Your task to perform on an android device: open app "Facebook" (install if not already installed) Image 0: 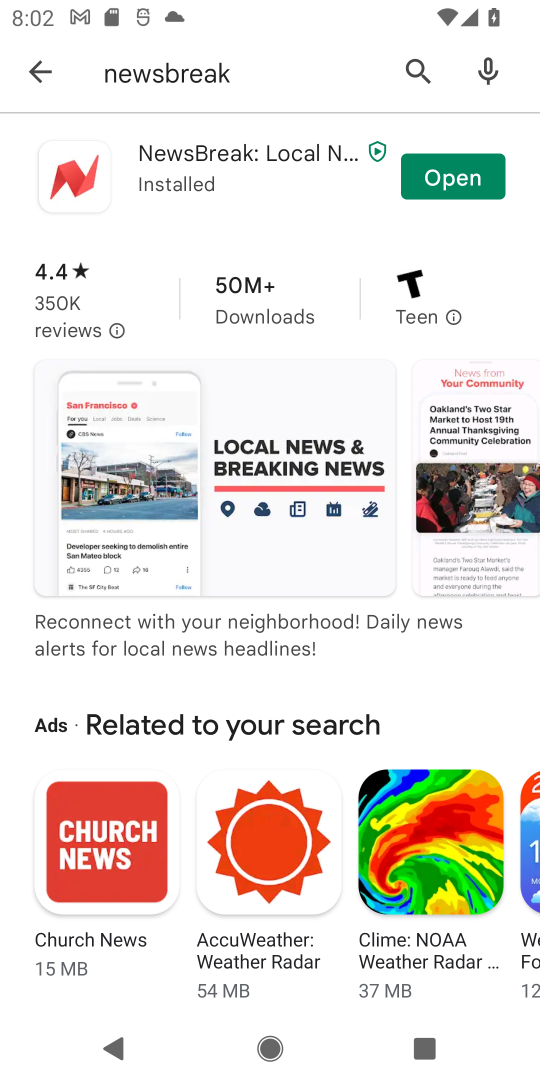
Step 0: press home button
Your task to perform on an android device: open app "Facebook" (install if not already installed) Image 1: 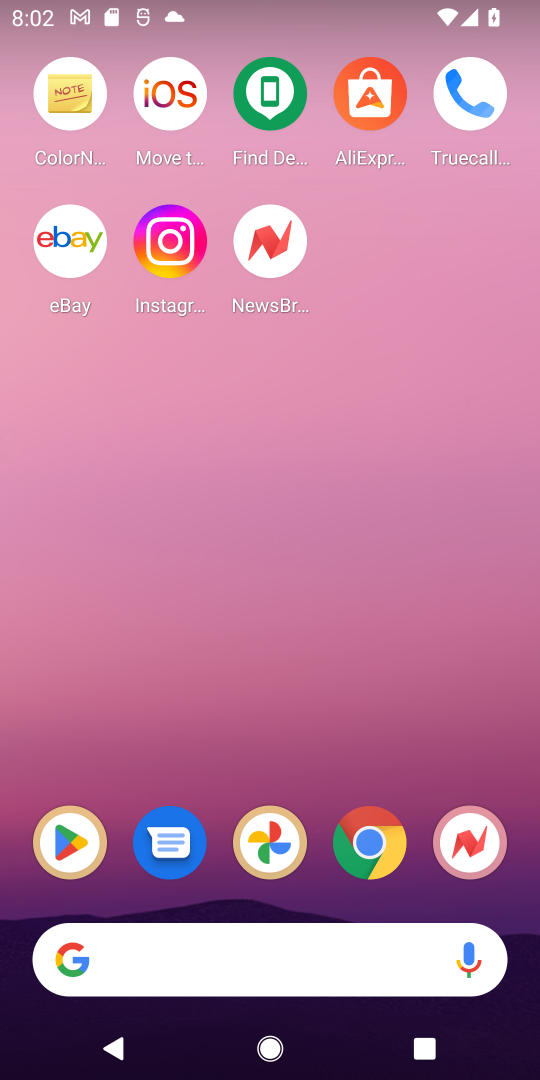
Step 1: click (79, 842)
Your task to perform on an android device: open app "Facebook" (install if not already installed) Image 2: 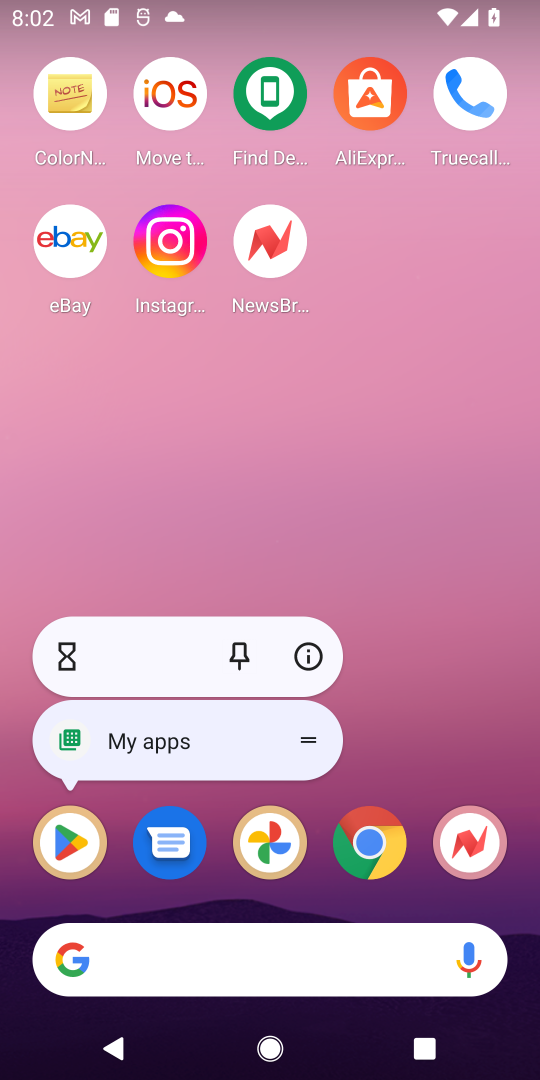
Step 2: click (75, 839)
Your task to perform on an android device: open app "Facebook" (install if not already installed) Image 3: 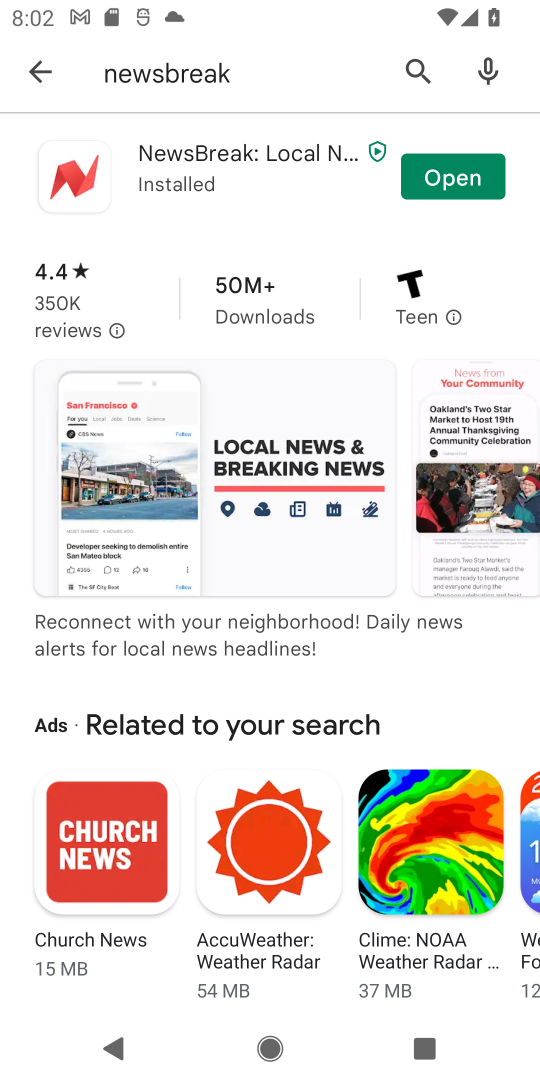
Step 3: click (240, 77)
Your task to perform on an android device: open app "Facebook" (install if not already installed) Image 4: 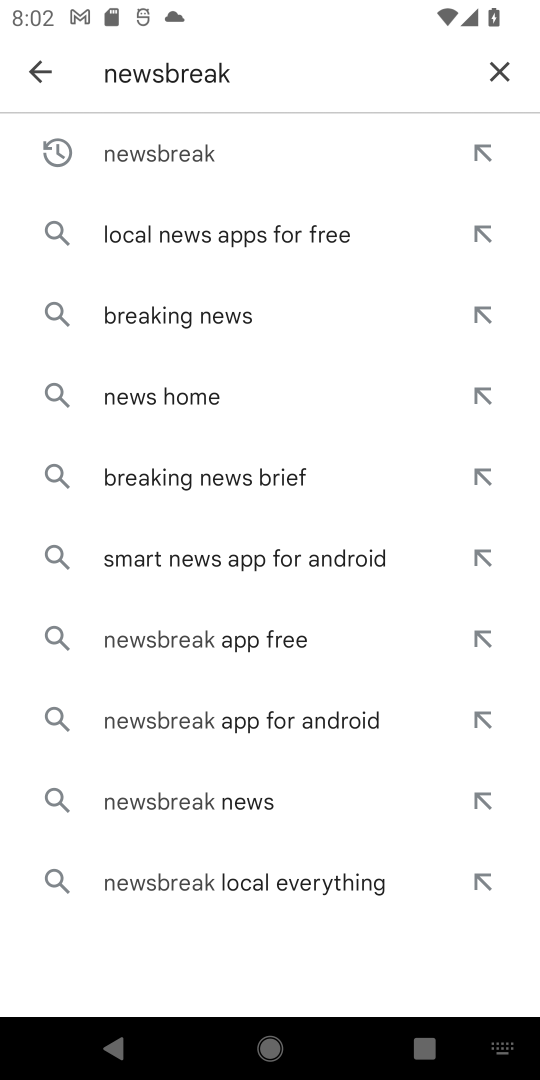
Step 4: click (506, 65)
Your task to perform on an android device: open app "Facebook" (install if not already installed) Image 5: 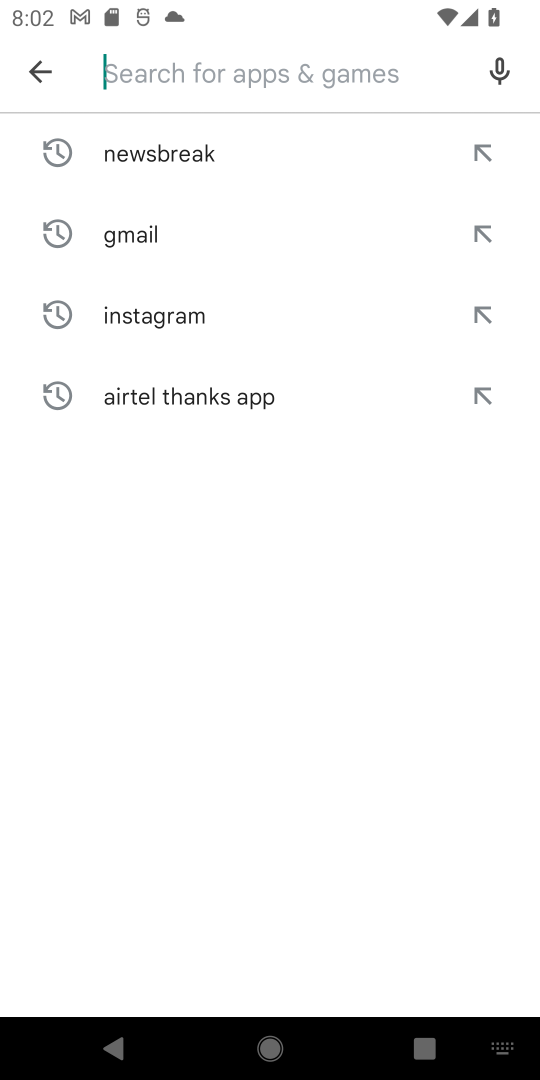
Step 5: type "facebook"
Your task to perform on an android device: open app "Facebook" (install if not already installed) Image 6: 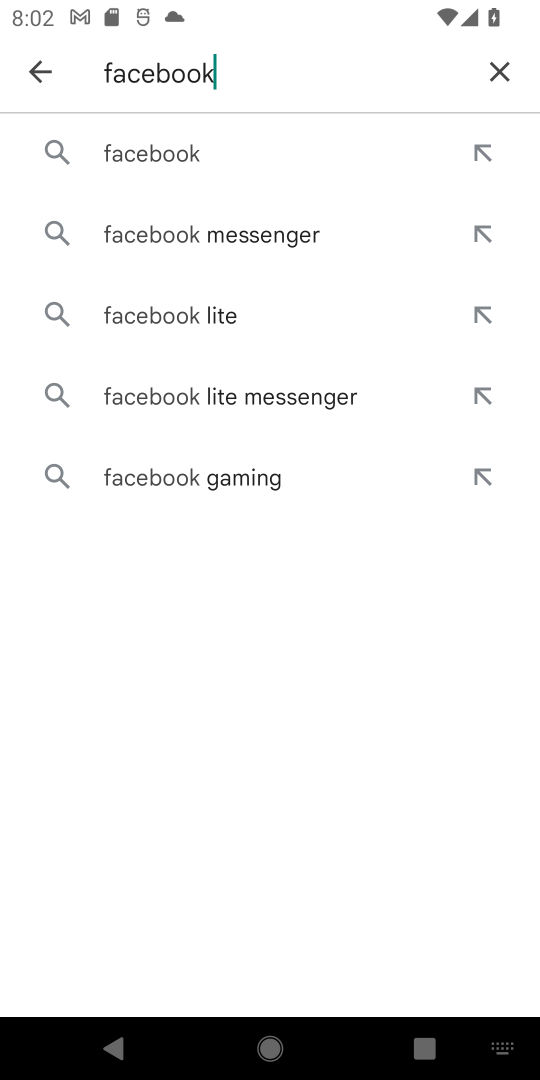
Step 6: click (129, 164)
Your task to perform on an android device: open app "Facebook" (install if not already installed) Image 7: 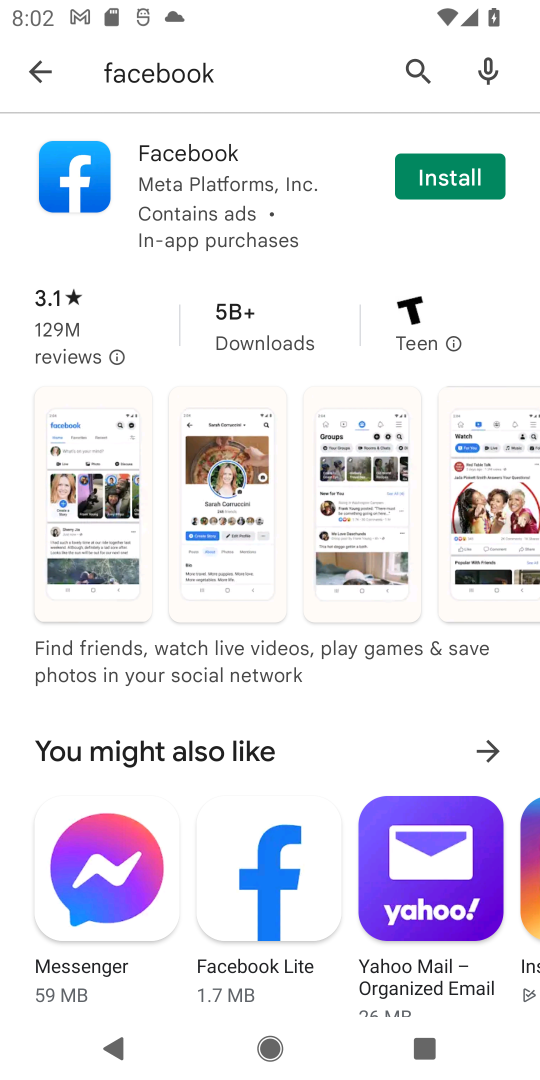
Step 7: click (467, 182)
Your task to perform on an android device: open app "Facebook" (install if not already installed) Image 8: 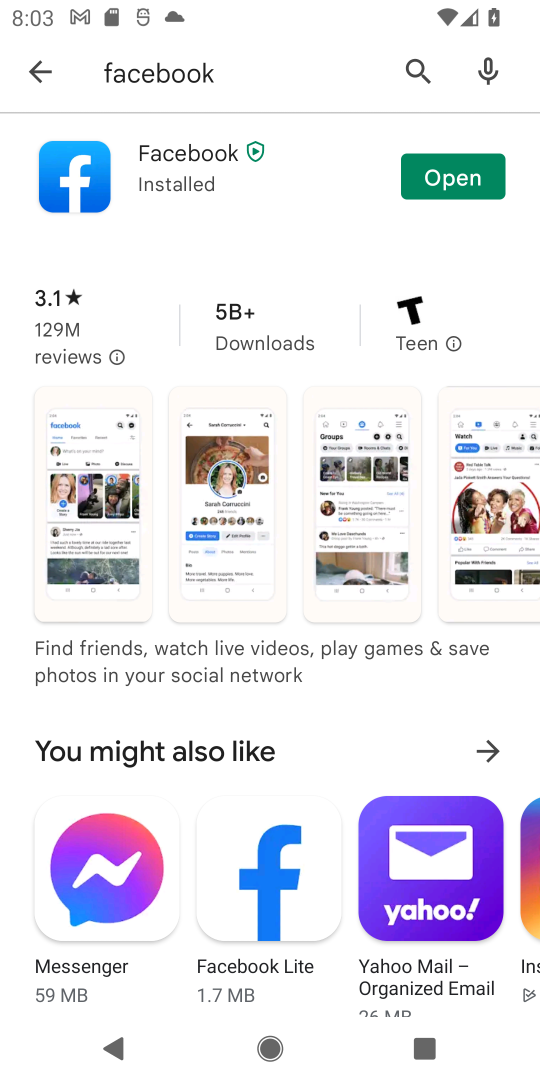
Step 8: click (481, 180)
Your task to perform on an android device: open app "Facebook" (install if not already installed) Image 9: 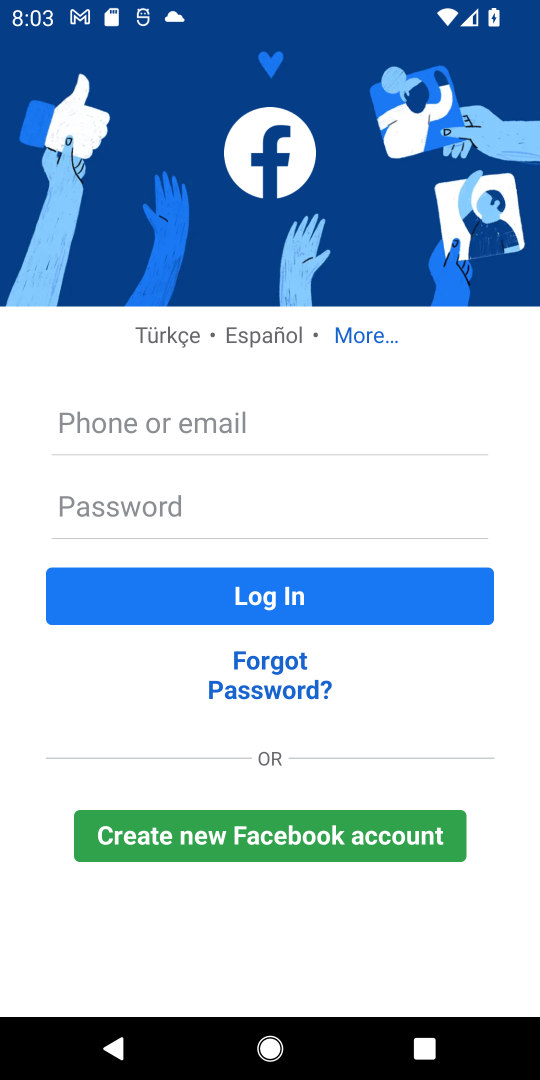
Step 9: task complete